Your task to perform on an android device: see creations saved in the google photos Image 0: 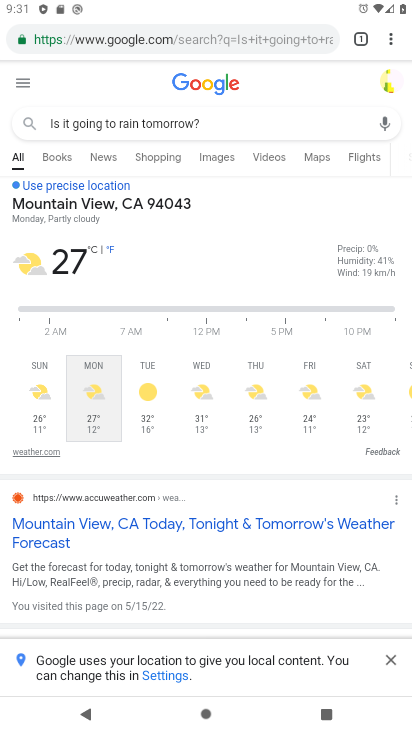
Step 0: press back button
Your task to perform on an android device: see creations saved in the google photos Image 1: 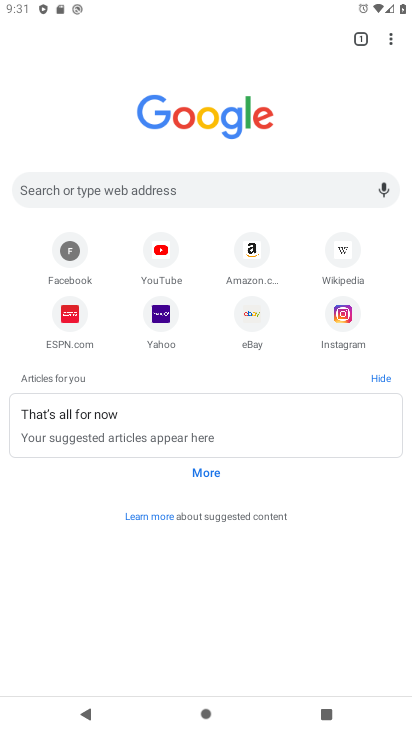
Step 1: press back button
Your task to perform on an android device: see creations saved in the google photos Image 2: 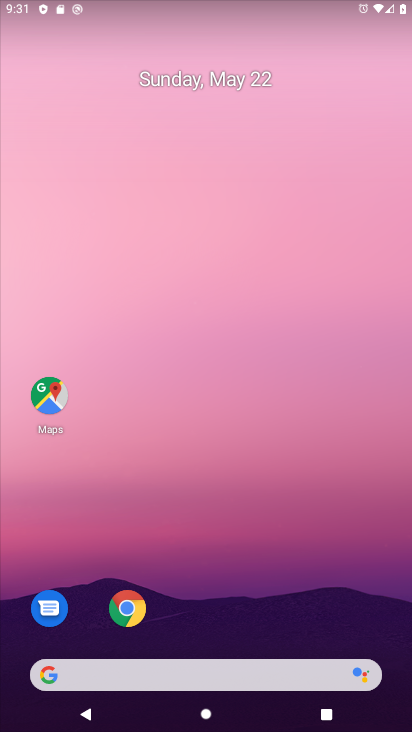
Step 2: drag from (288, 594) to (274, 31)
Your task to perform on an android device: see creations saved in the google photos Image 3: 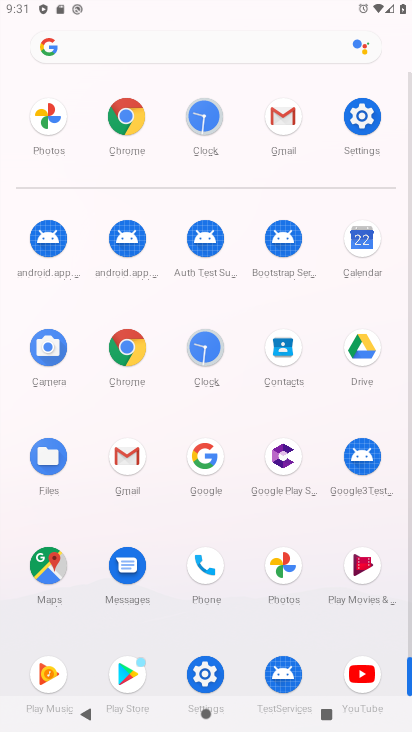
Step 3: click (284, 568)
Your task to perform on an android device: see creations saved in the google photos Image 4: 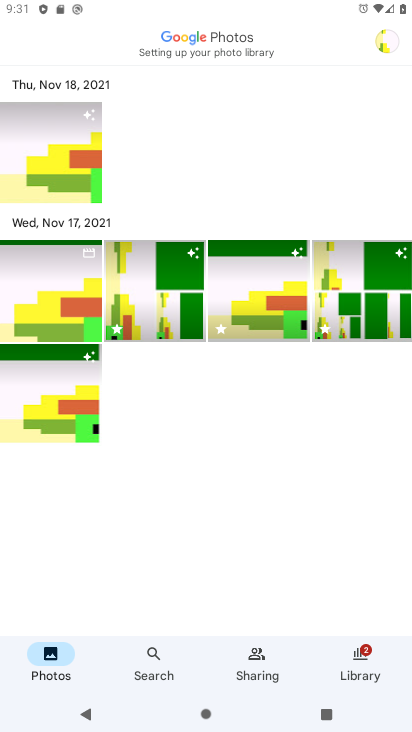
Step 4: task complete